Your task to perform on an android device: search for starred emails in the gmail app Image 0: 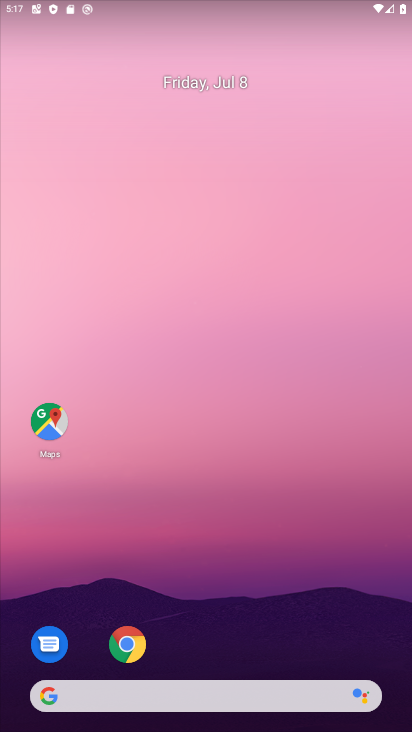
Step 0: drag from (234, 593) to (218, 303)
Your task to perform on an android device: search for starred emails in the gmail app Image 1: 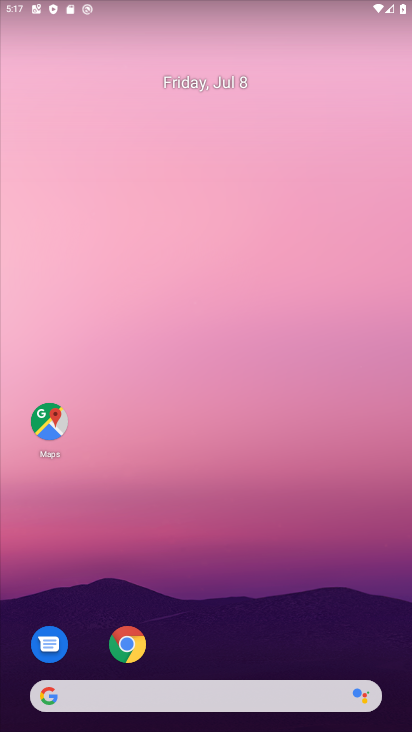
Step 1: drag from (252, 594) to (227, 12)
Your task to perform on an android device: search for starred emails in the gmail app Image 2: 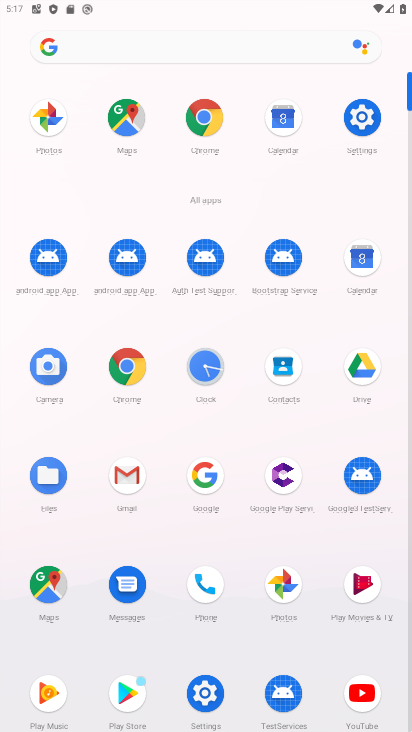
Step 2: click (126, 488)
Your task to perform on an android device: search for starred emails in the gmail app Image 3: 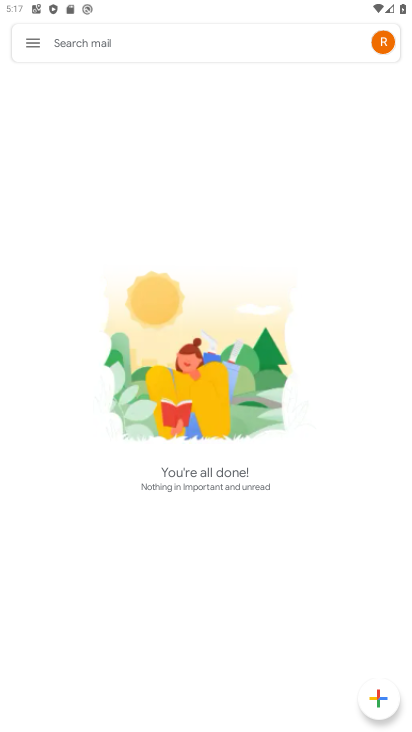
Step 3: click (32, 36)
Your task to perform on an android device: search for starred emails in the gmail app Image 4: 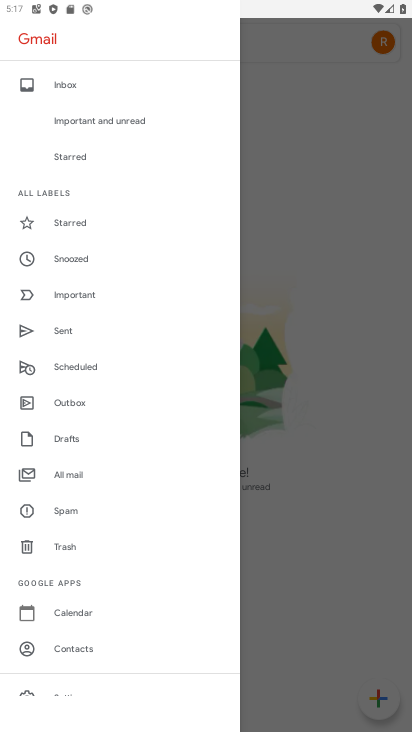
Step 4: click (92, 219)
Your task to perform on an android device: search for starred emails in the gmail app Image 5: 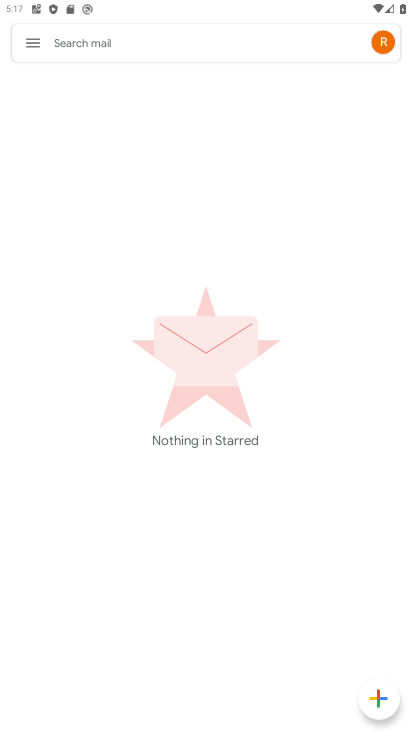
Step 5: task complete